Your task to perform on an android device: Go to internet settings Image 0: 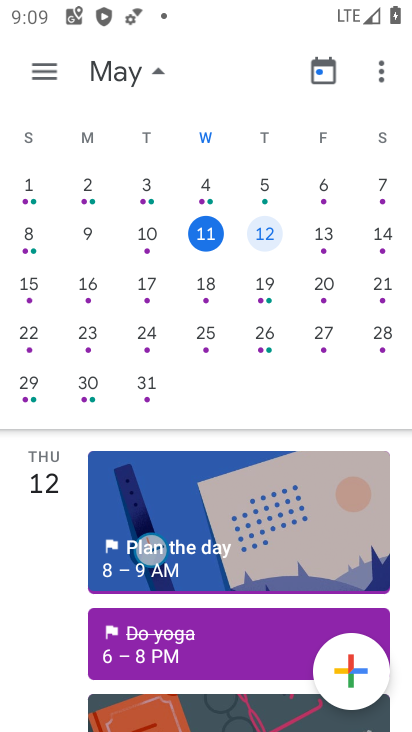
Step 0: press home button
Your task to perform on an android device: Go to internet settings Image 1: 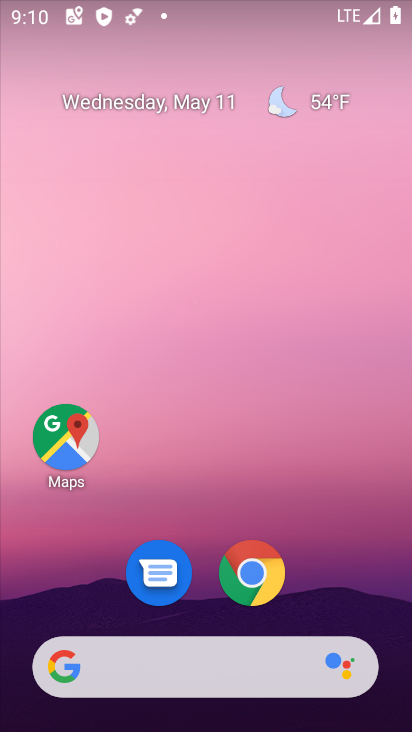
Step 1: drag from (276, 636) to (336, 8)
Your task to perform on an android device: Go to internet settings Image 2: 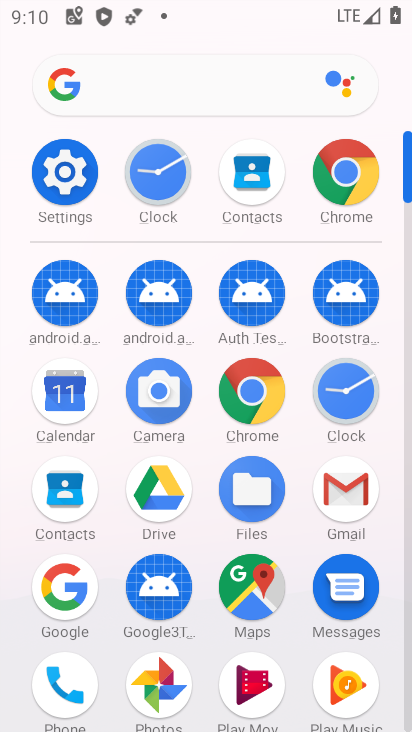
Step 2: click (66, 183)
Your task to perform on an android device: Go to internet settings Image 3: 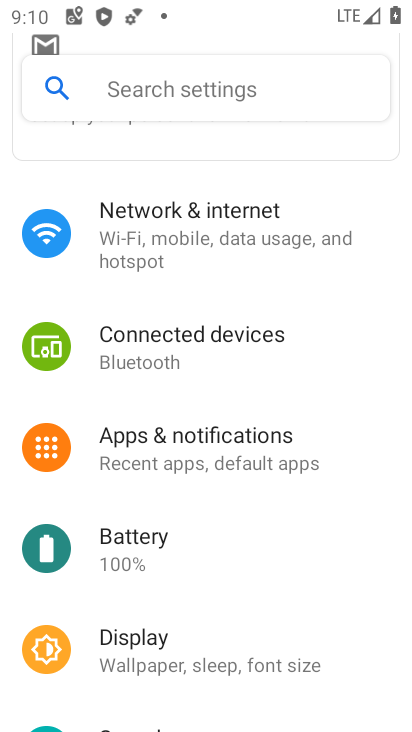
Step 3: click (247, 258)
Your task to perform on an android device: Go to internet settings Image 4: 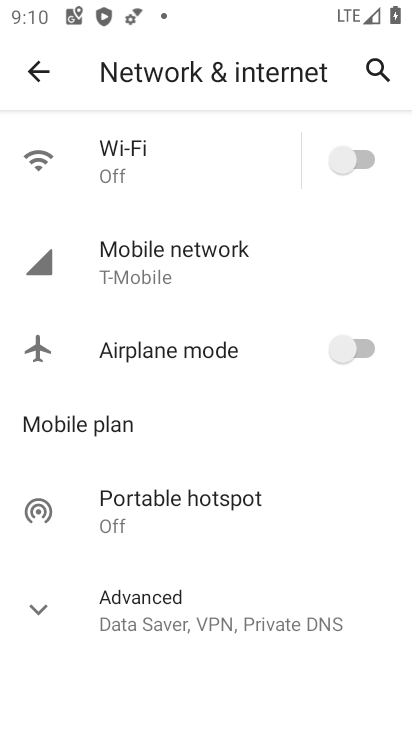
Step 4: click (182, 265)
Your task to perform on an android device: Go to internet settings Image 5: 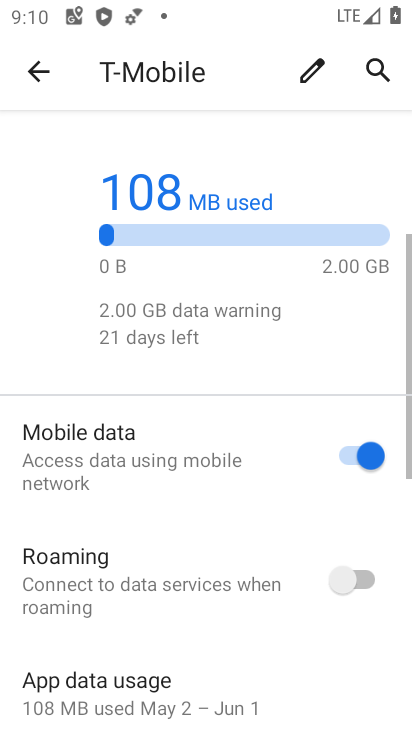
Step 5: task complete